Your task to perform on an android device: toggle show notifications on the lock screen Image 0: 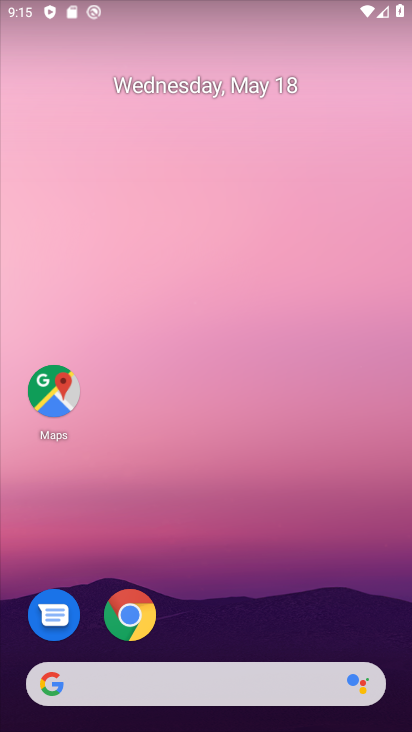
Step 0: drag from (229, 563) to (247, 77)
Your task to perform on an android device: toggle show notifications on the lock screen Image 1: 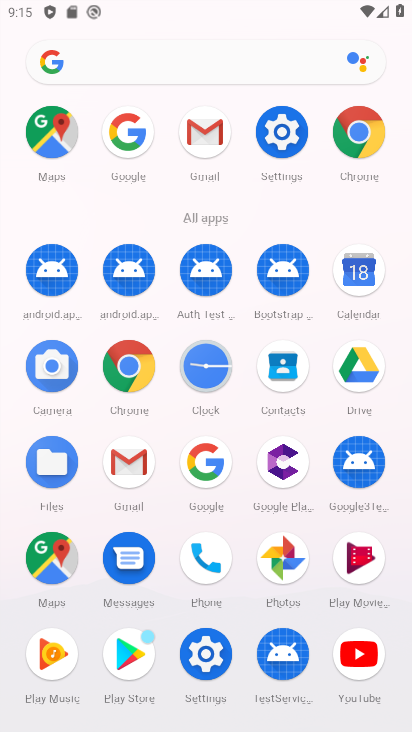
Step 1: click (283, 140)
Your task to perform on an android device: toggle show notifications on the lock screen Image 2: 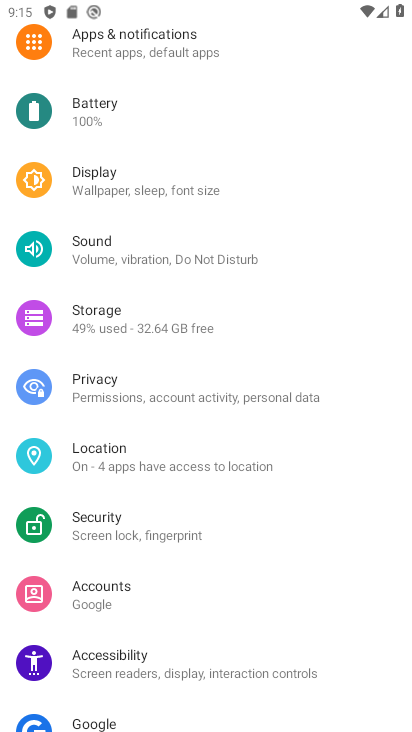
Step 2: click (140, 52)
Your task to perform on an android device: toggle show notifications on the lock screen Image 3: 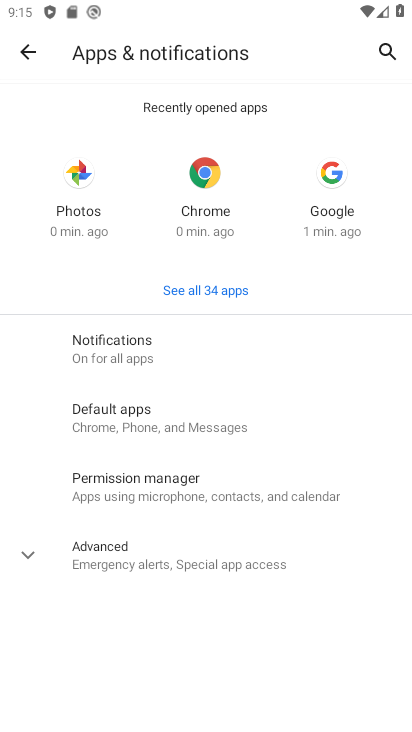
Step 3: click (135, 350)
Your task to perform on an android device: toggle show notifications on the lock screen Image 4: 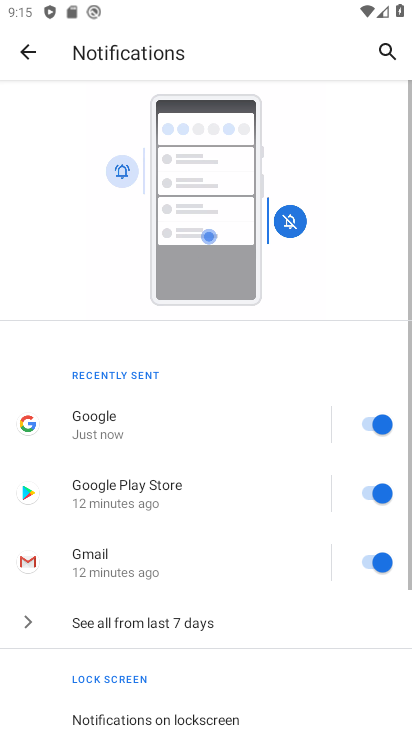
Step 4: task complete